Your task to perform on an android device: Go to CNN.com Image 0: 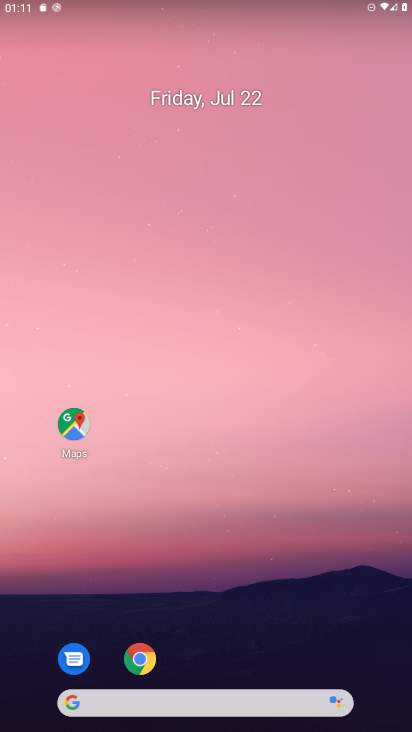
Step 0: click (141, 658)
Your task to perform on an android device: Go to CNN.com Image 1: 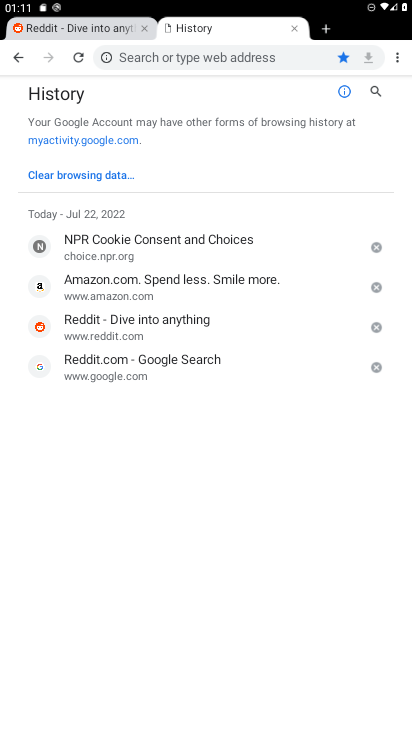
Step 1: click (289, 57)
Your task to perform on an android device: Go to CNN.com Image 2: 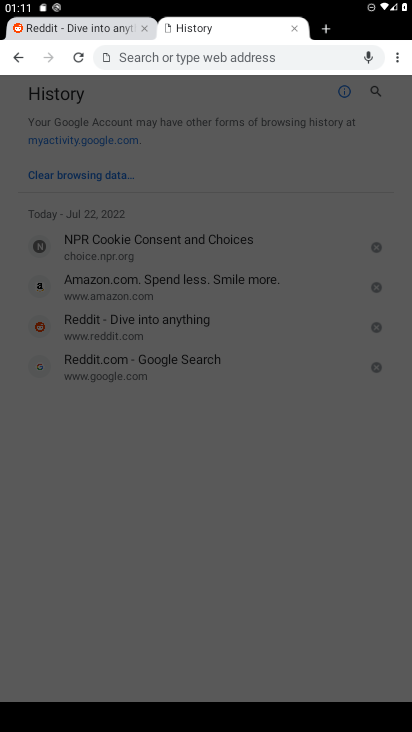
Step 2: type "CNN.com"
Your task to perform on an android device: Go to CNN.com Image 3: 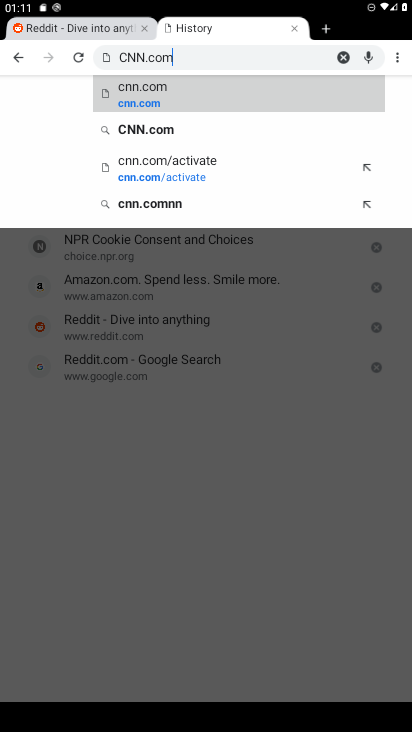
Step 3: click (164, 129)
Your task to perform on an android device: Go to CNN.com Image 4: 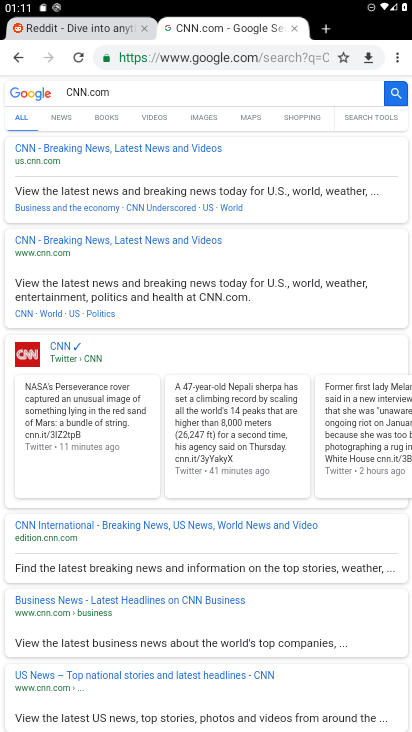
Step 4: click (120, 147)
Your task to perform on an android device: Go to CNN.com Image 5: 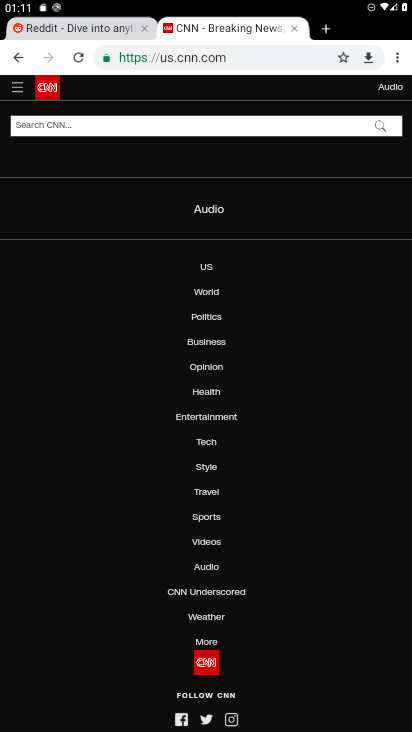
Step 5: task complete